Your task to perform on an android device: Clear the shopping cart on costco. Image 0: 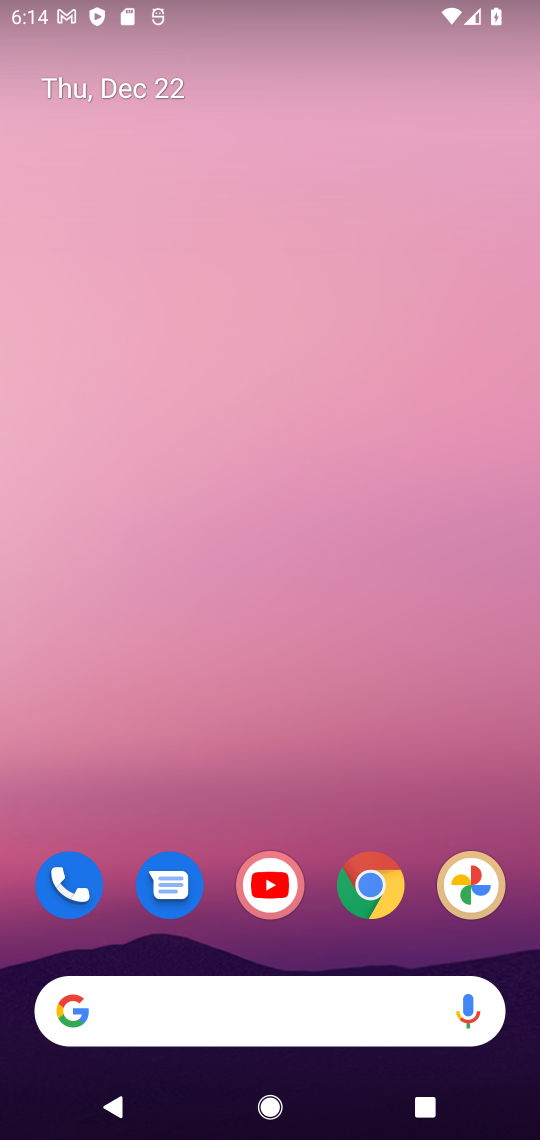
Step 0: click (370, 886)
Your task to perform on an android device: Clear the shopping cart on costco. Image 1: 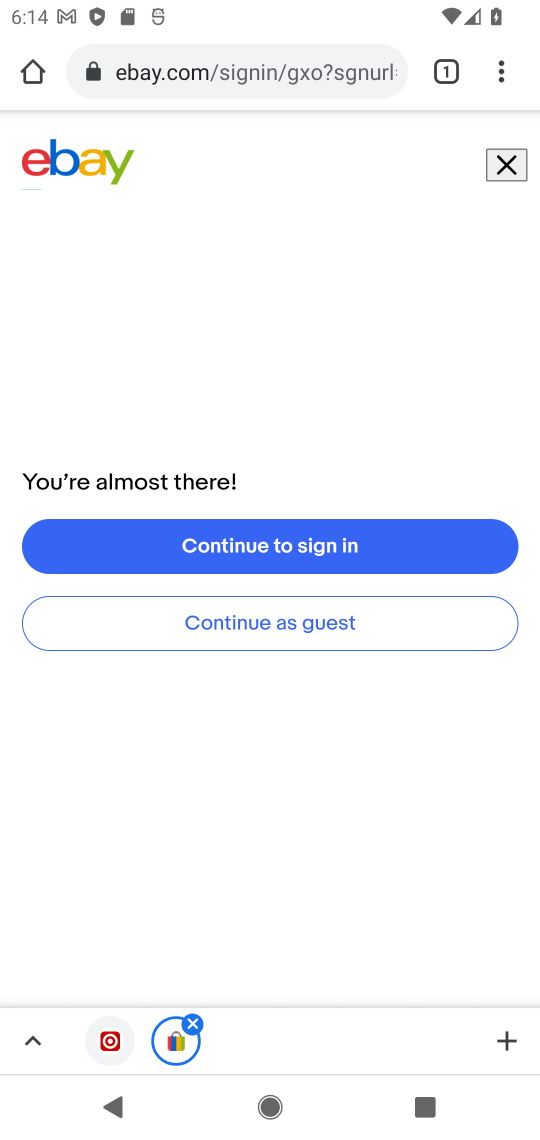
Step 1: click (178, 80)
Your task to perform on an android device: Clear the shopping cart on costco. Image 2: 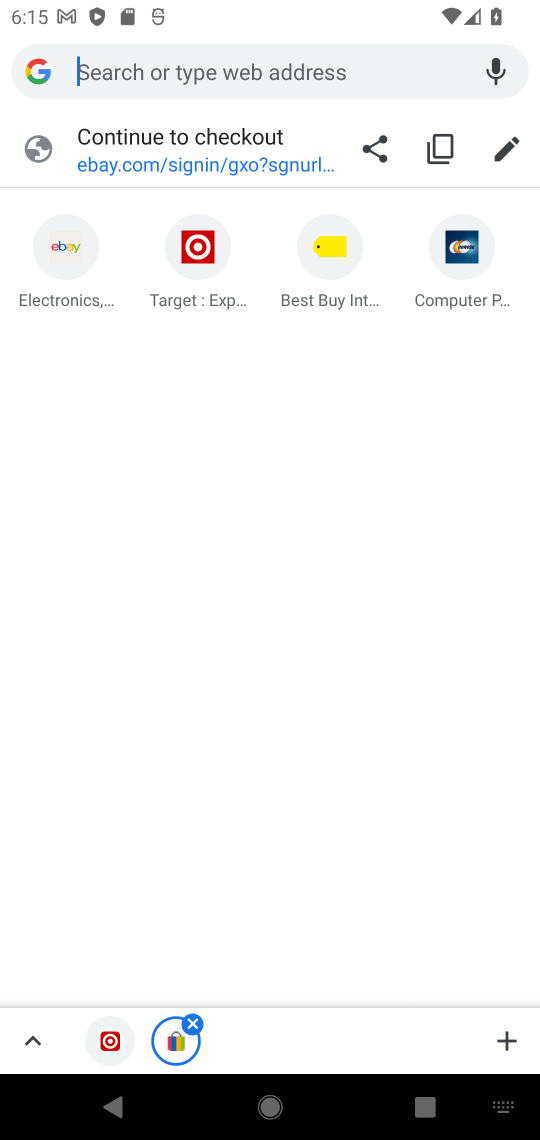
Step 2: type "costco.com"
Your task to perform on an android device: Clear the shopping cart on costco. Image 3: 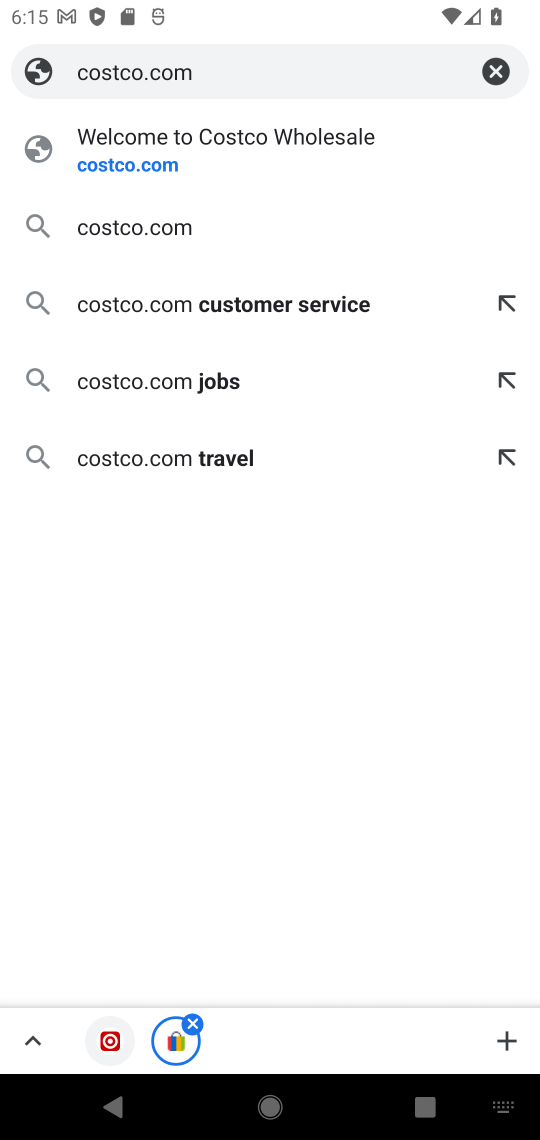
Step 3: click (98, 174)
Your task to perform on an android device: Clear the shopping cart on costco. Image 4: 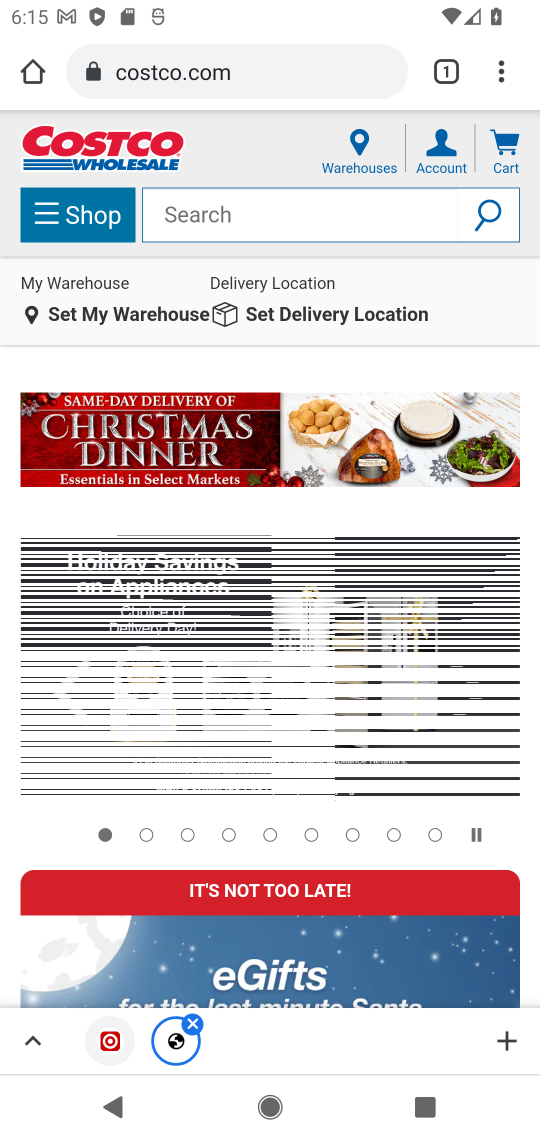
Step 4: click (510, 153)
Your task to perform on an android device: Clear the shopping cart on costco. Image 5: 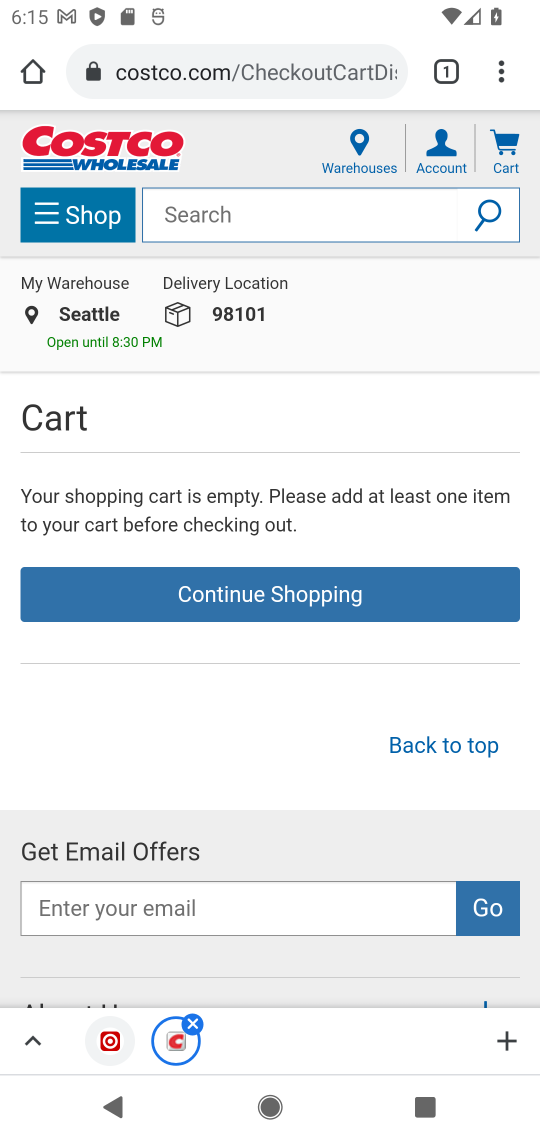
Step 5: task complete